Your task to perform on an android device: Show the shopping cart on bestbuy.com. Image 0: 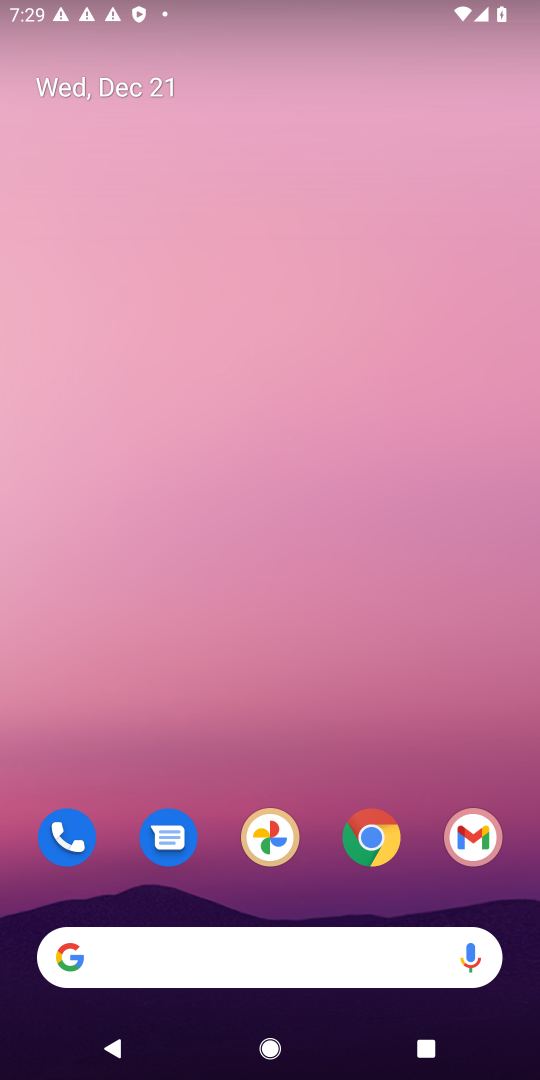
Step 0: press home button
Your task to perform on an android device: Show the shopping cart on bestbuy.com. Image 1: 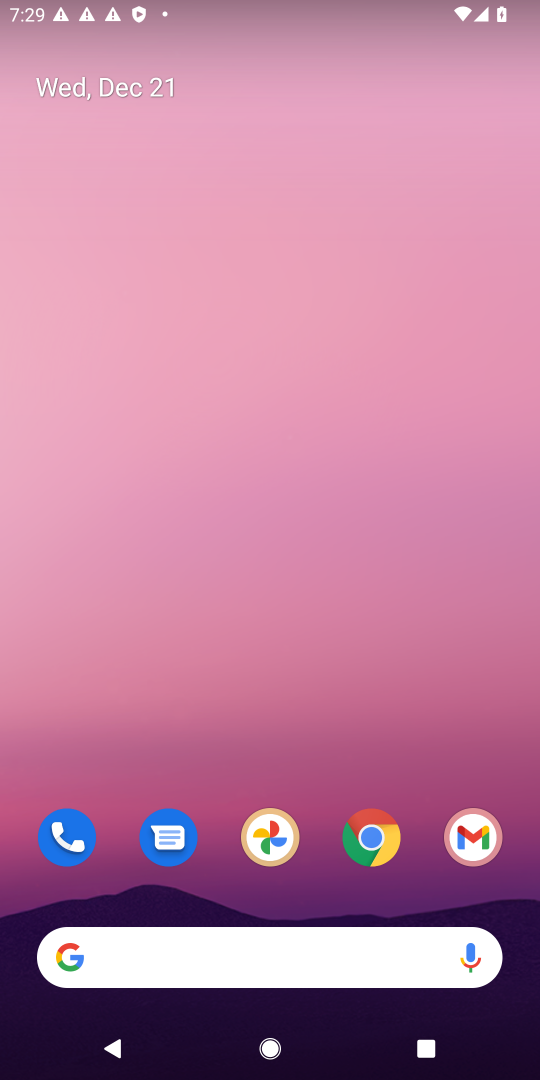
Step 1: drag from (204, 748) to (204, 498)
Your task to perform on an android device: Show the shopping cart on bestbuy.com. Image 2: 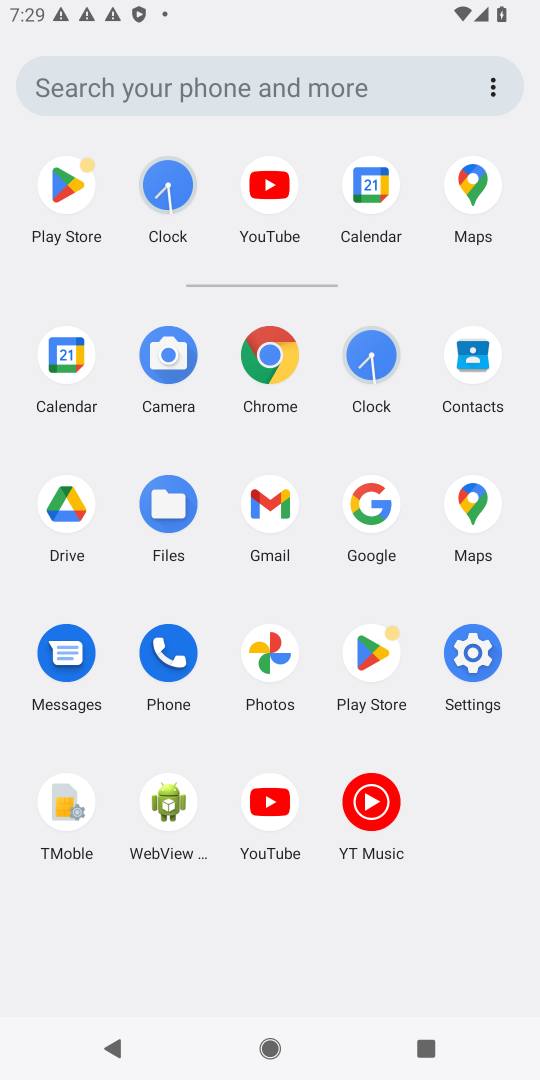
Step 2: click (387, 505)
Your task to perform on an android device: Show the shopping cart on bestbuy.com. Image 3: 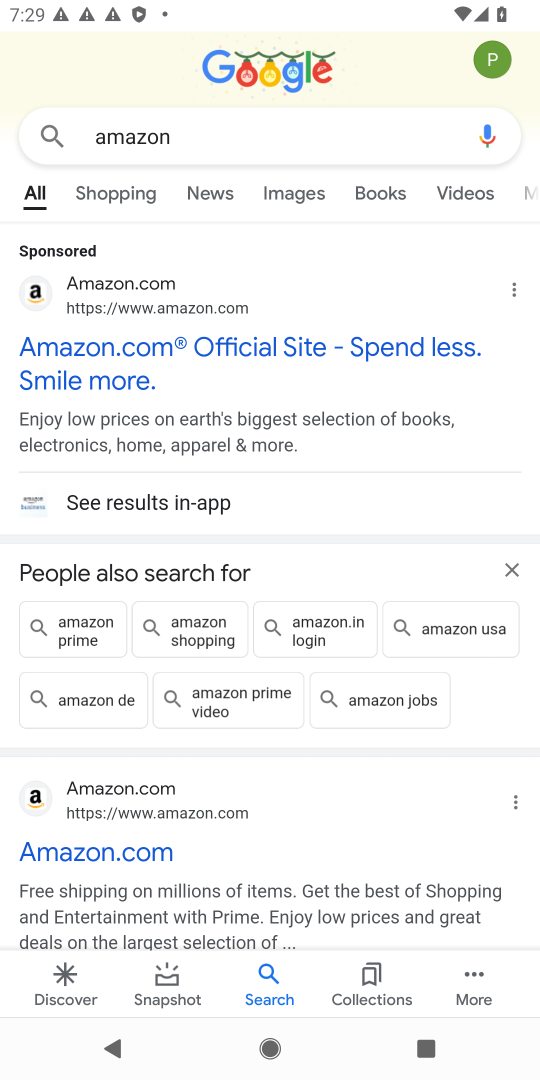
Step 3: click (148, 126)
Your task to perform on an android device: Show the shopping cart on bestbuy.com. Image 4: 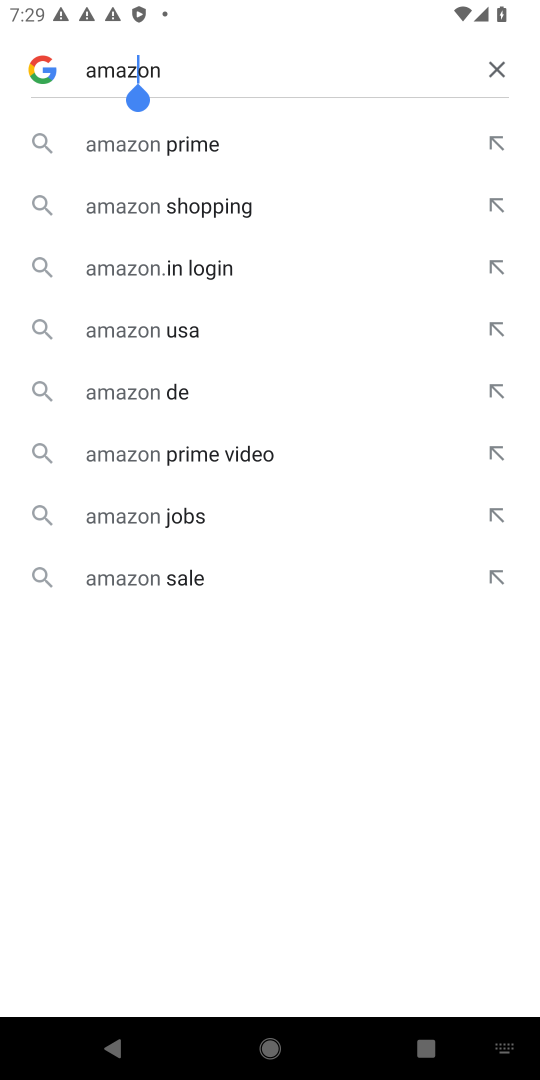
Step 4: click (500, 71)
Your task to perform on an android device: Show the shopping cart on bestbuy.com. Image 5: 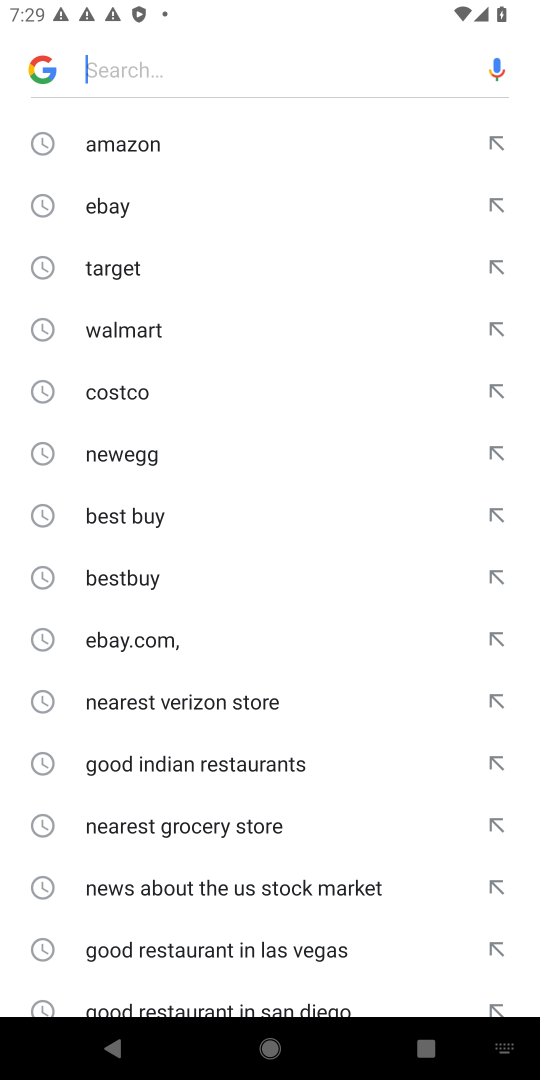
Step 5: click (128, 524)
Your task to perform on an android device: Show the shopping cart on bestbuy.com. Image 6: 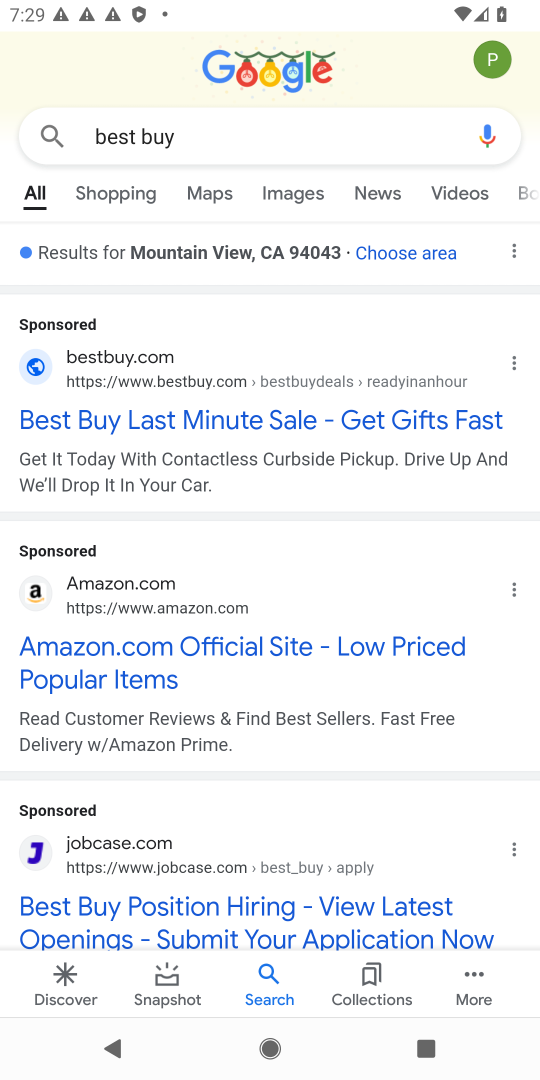
Step 6: click (114, 415)
Your task to perform on an android device: Show the shopping cart on bestbuy.com. Image 7: 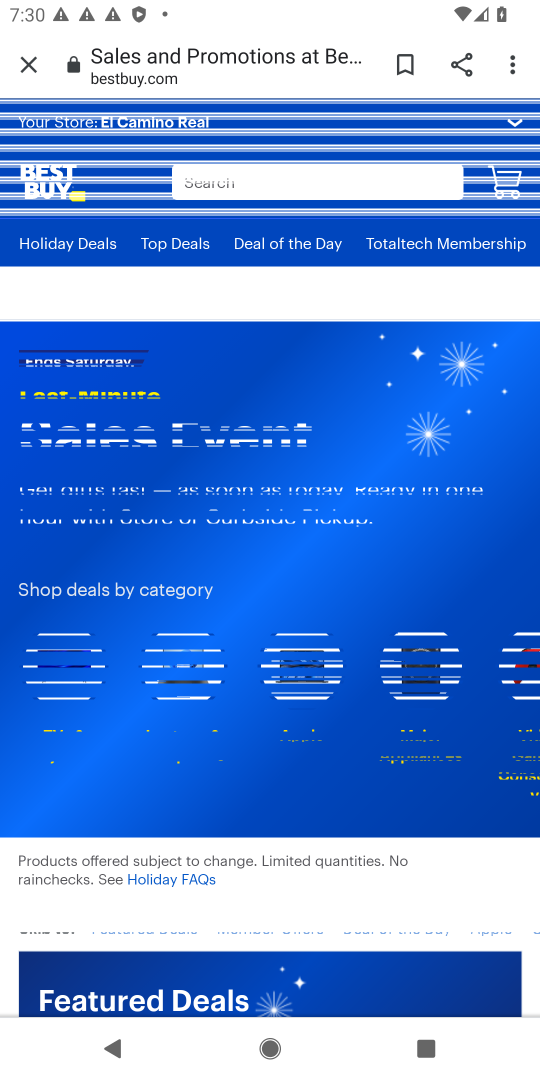
Step 7: click (507, 177)
Your task to perform on an android device: Show the shopping cart on bestbuy.com. Image 8: 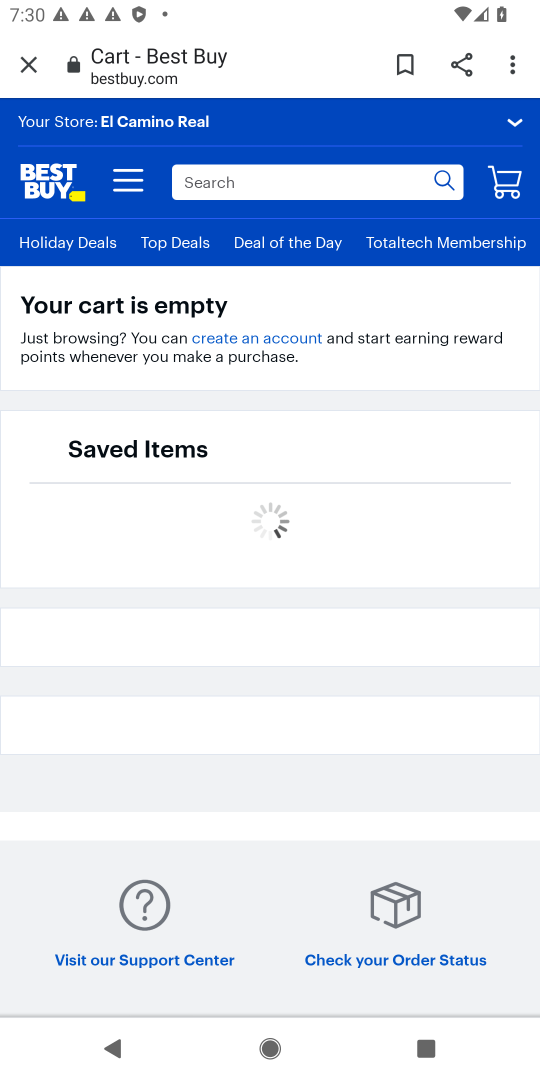
Step 8: task complete